Your task to perform on an android device: What's the weather today? Image 0: 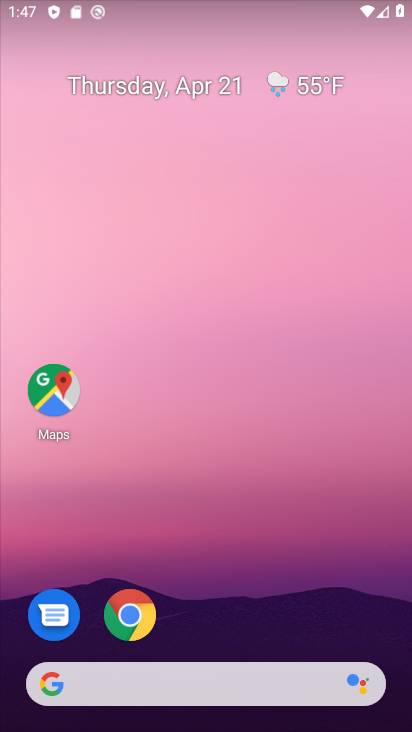
Step 0: drag from (189, 649) to (211, 283)
Your task to perform on an android device: What's the weather today? Image 1: 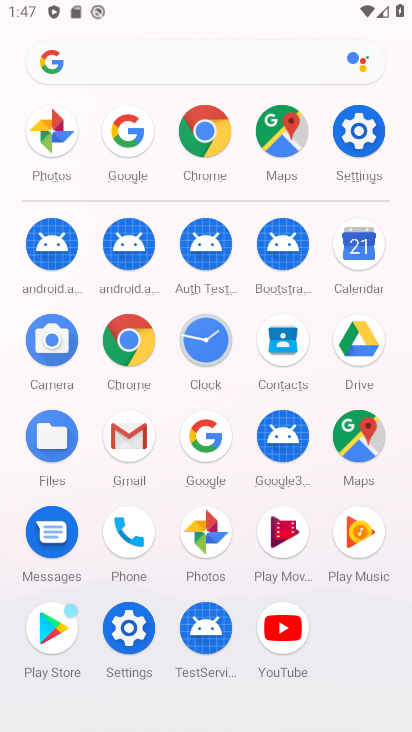
Step 1: click (203, 432)
Your task to perform on an android device: What's the weather today? Image 2: 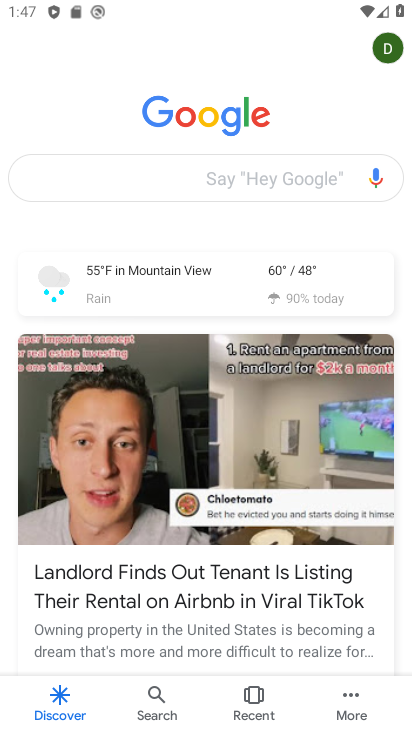
Step 2: click (156, 278)
Your task to perform on an android device: What's the weather today? Image 3: 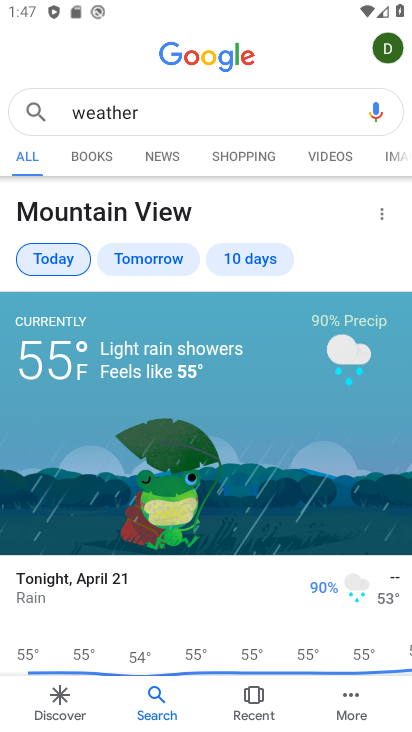
Step 3: task complete